Your task to perform on an android device: Open calendar and show me the first week of next month Image 0: 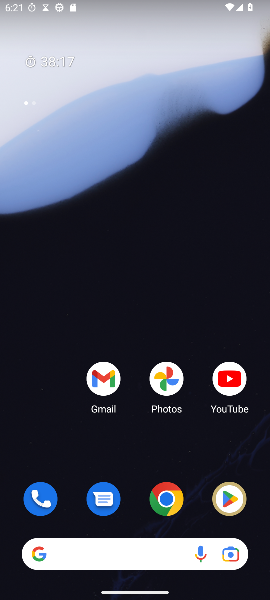
Step 0: drag from (135, 303) to (257, 36)
Your task to perform on an android device: Open calendar and show me the first week of next month Image 1: 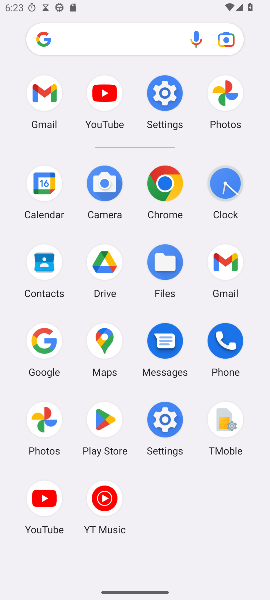
Step 1: click (49, 195)
Your task to perform on an android device: Open calendar and show me the first week of next month Image 2: 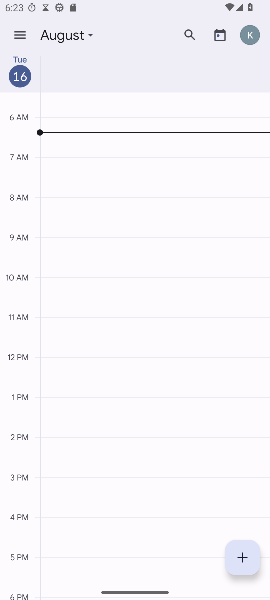
Step 2: click (78, 39)
Your task to perform on an android device: Open calendar and show me the first week of next month Image 3: 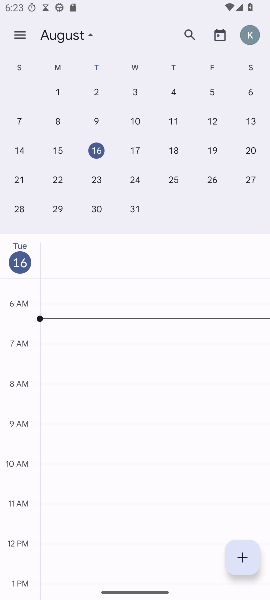
Step 3: drag from (230, 173) to (2, 155)
Your task to perform on an android device: Open calendar and show me the first week of next month Image 4: 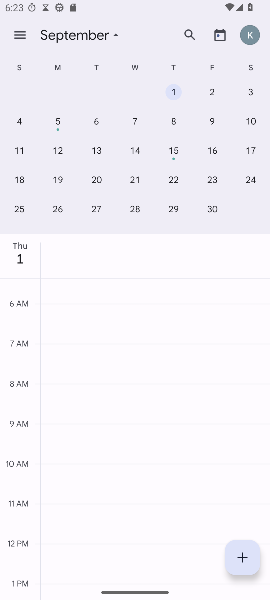
Step 4: click (138, 126)
Your task to perform on an android device: Open calendar and show me the first week of next month Image 5: 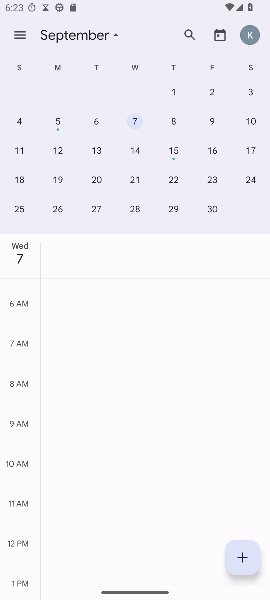
Step 5: task complete